Your task to perform on an android device: Set the phone to "Do not disturb". Image 0: 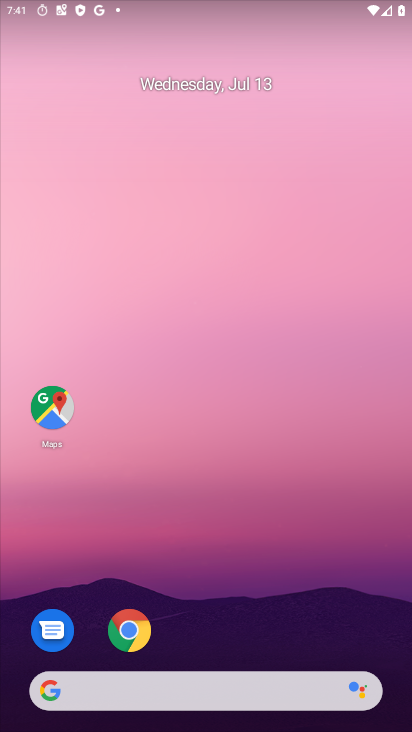
Step 0: drag from (388, 629) to (335, 253)
Your task to perform on an android device: Set the phone to "Do not disturb". Image 1: 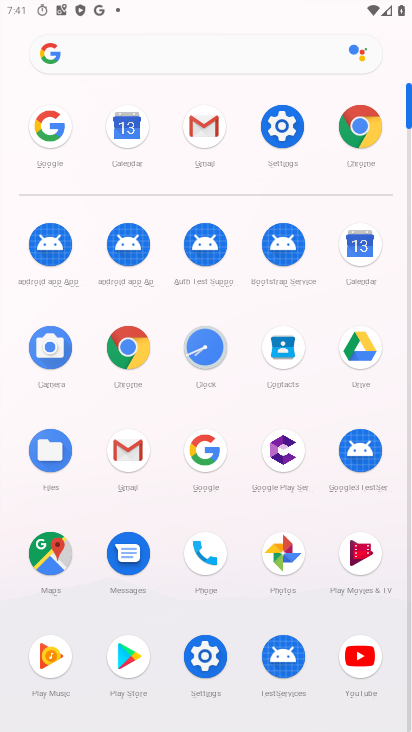
Step 1: drag from (220, 11) to (154, 699)
Your task to perform on an android device: Set the phone to "Do not disturb". Image 2: 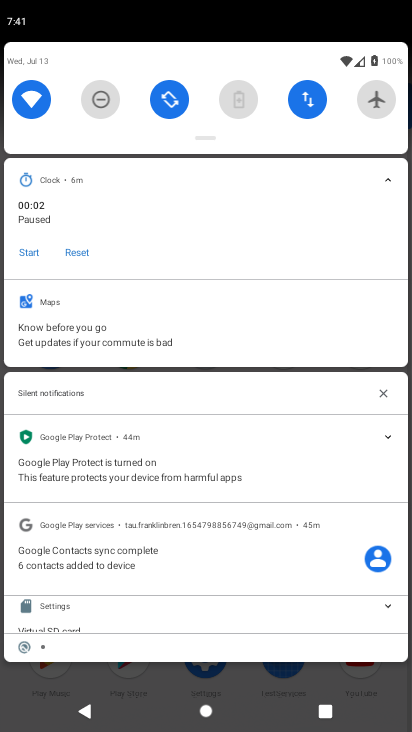
Step 2: click (105, 106)
Your task to perform on an android device: Set the phone to "Do not disturb". Image 3: 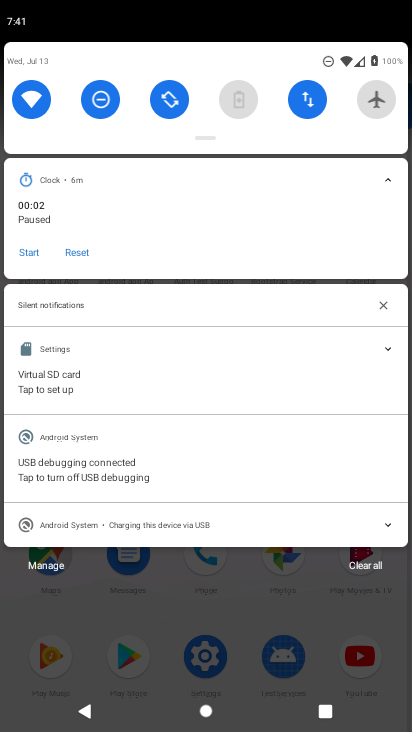
Step 3: task complete